Your task to perform on an android device: Open Youtube and go to "Your channel" Image 0: 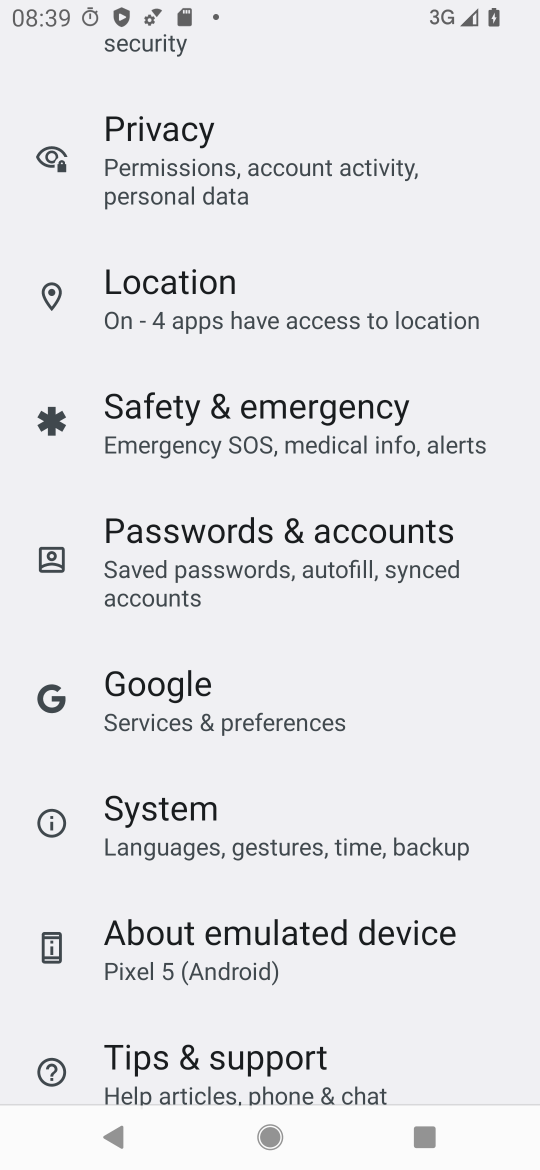
Step 0: press home button
Your task to perform on an android device: Open Youtube and go to "Your channel" Image 1: 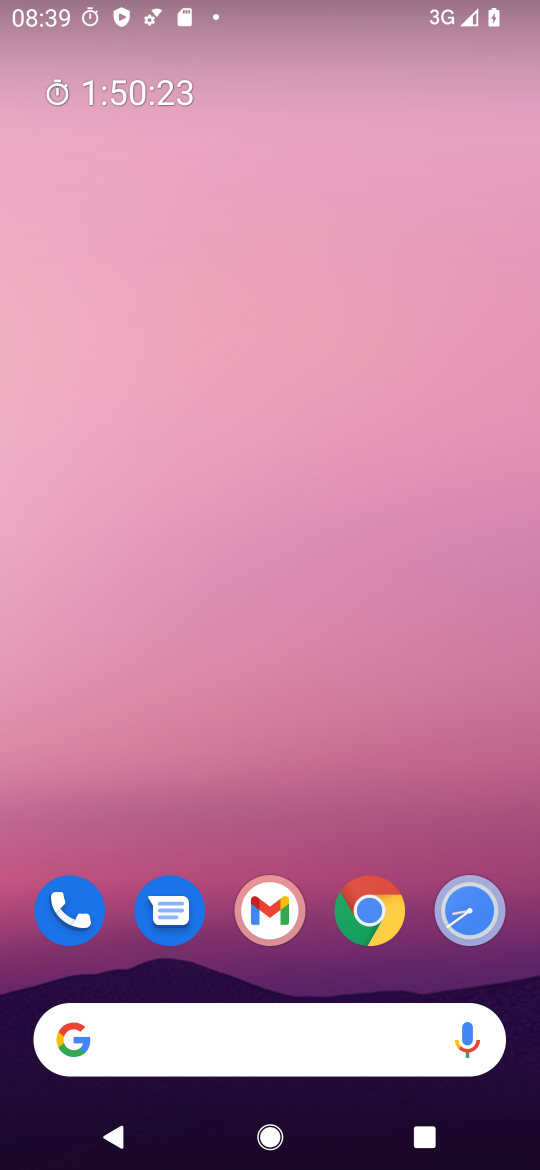
Step 1: drag from (267, 1037) to (210, 7)
Your task to perform on an android device: Open Youtube and go to "Your channel" Image 2: 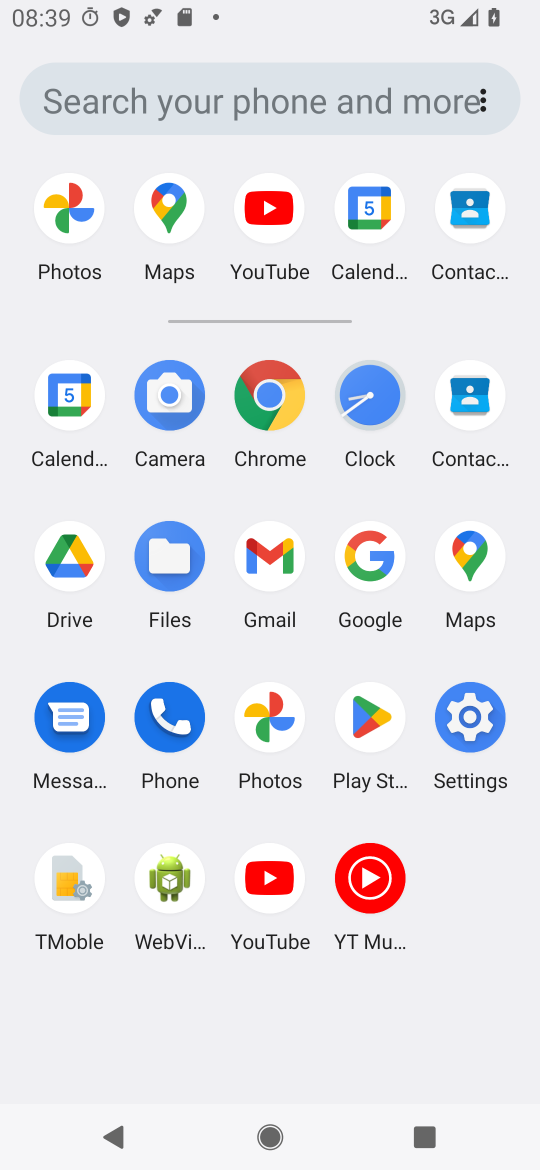
Step 2: click (270, 886)
Your task to perform on an android device: Open Youtube and go to "Your channel" Image 3: 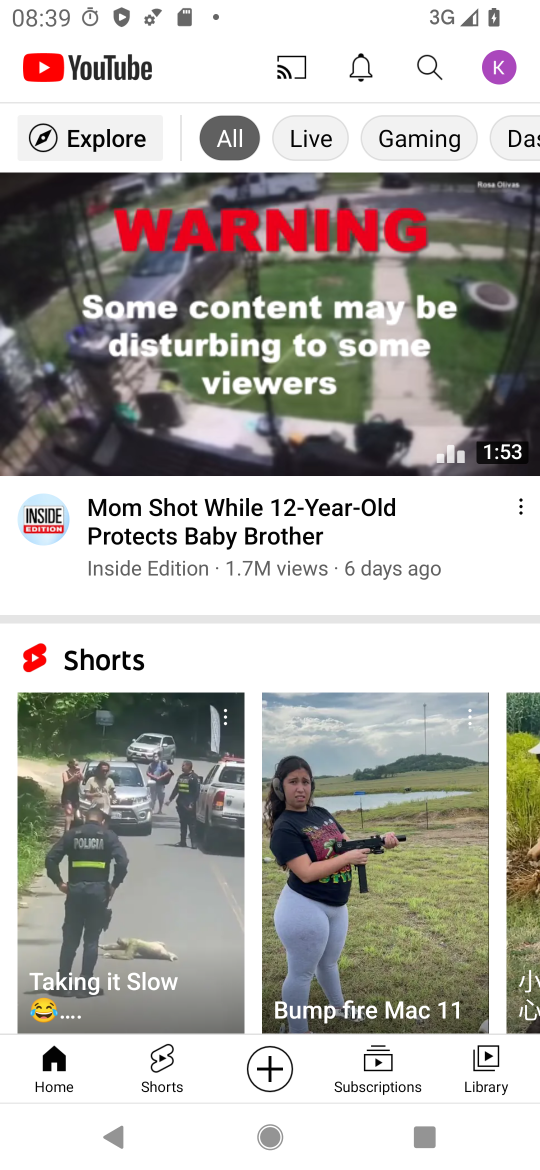
Step 3: click (493, 66)
Your task to perform on an android device: Open Youtube and go to "Your channel" Image 4: 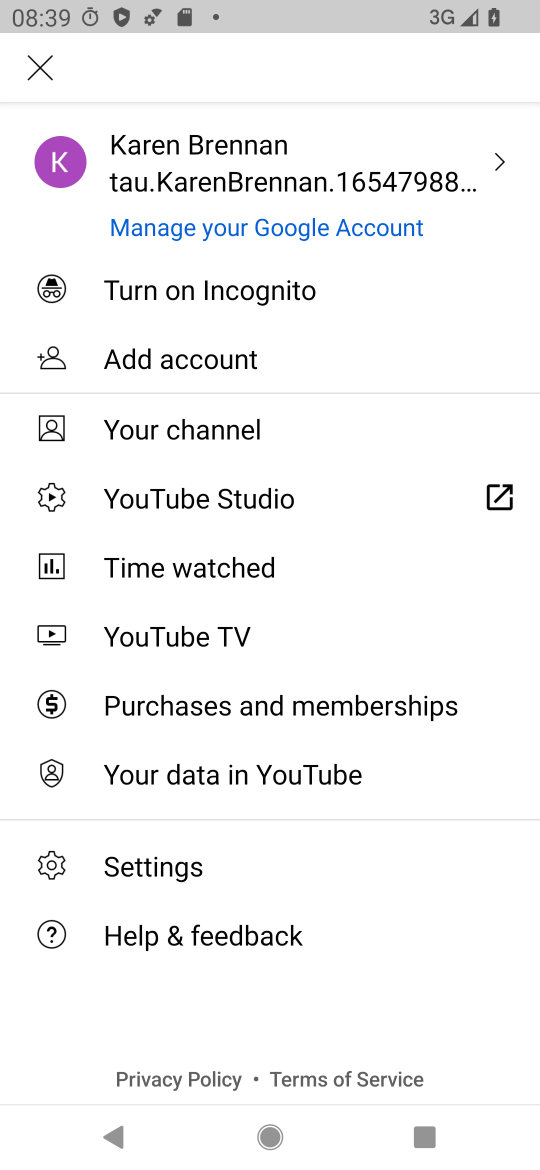
Step 4: click (110, 412)
Your task to perform on an android device: Open Youtube and go to "Your channel" Image 5: 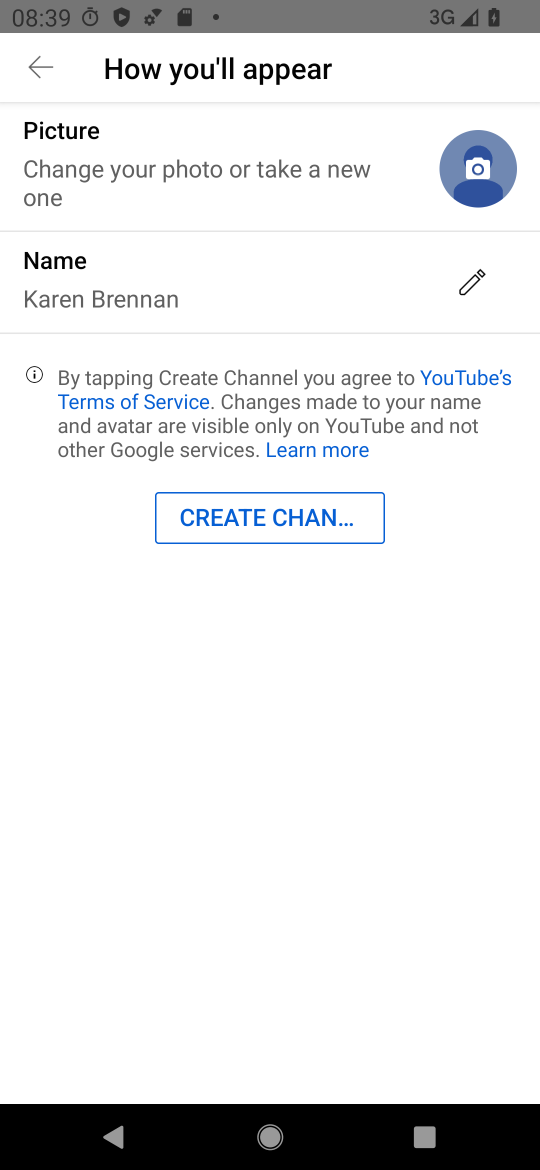
Step 5: task complete